Your task to perform on an android device: install app "Google Chrome" Image 0: 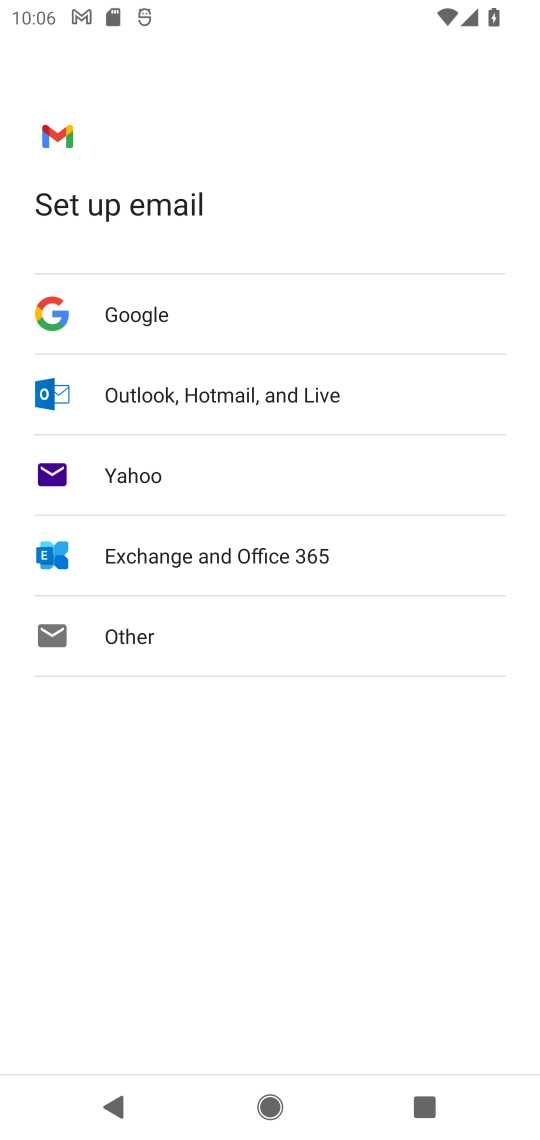
Step 0: press home button
Your task to perform on an android device: install app "Google Chrome" Image 1: 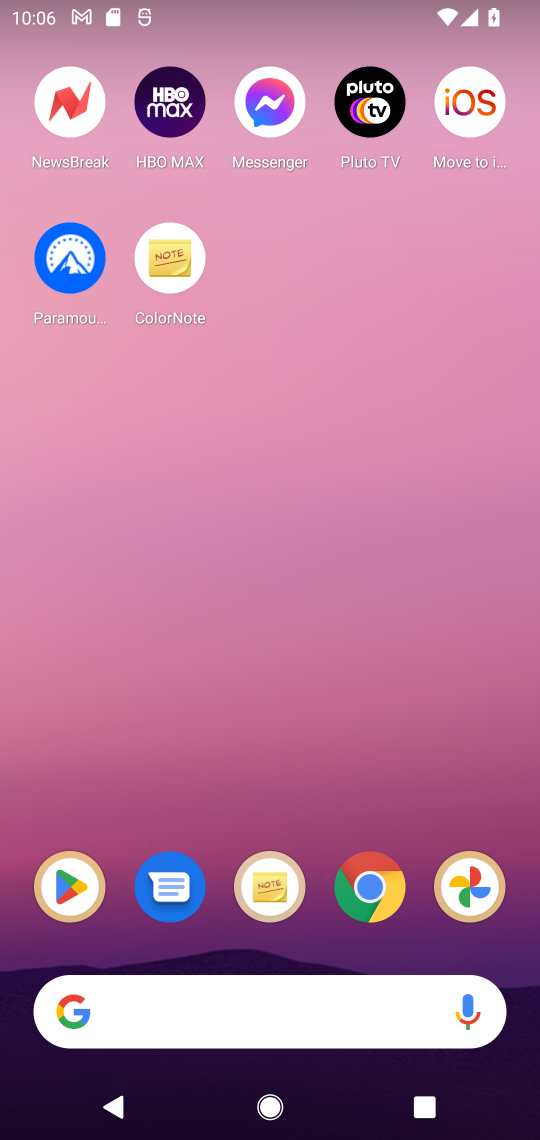
Step 1: click (52, 884)
Your task to perform on an android device: install app "Google Chrome" Image 2: 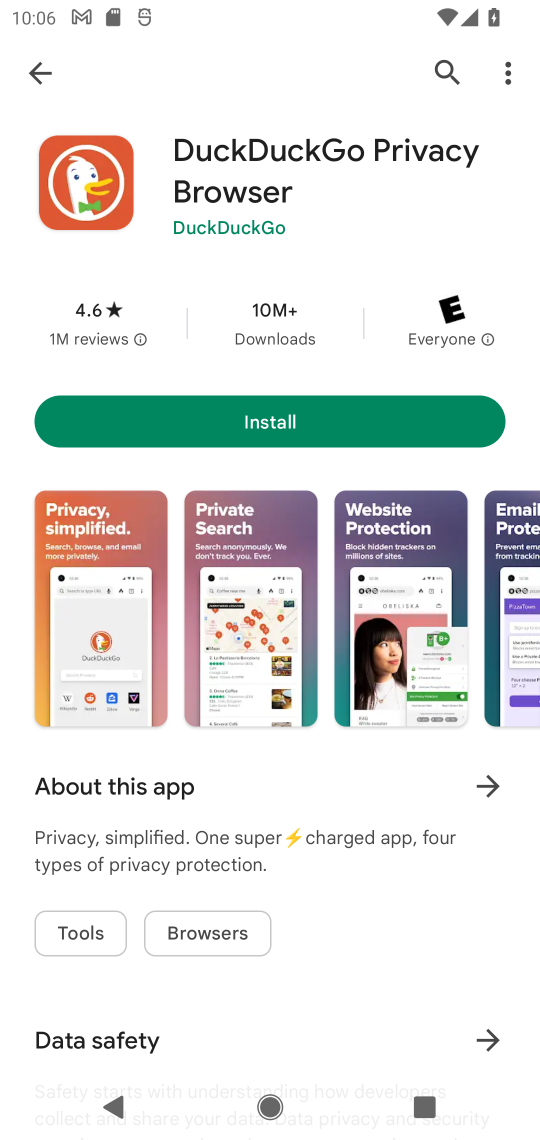
Step 2: click (452, 73)
Your task to perform on an android device: install app "Google Chrome" Image 3: 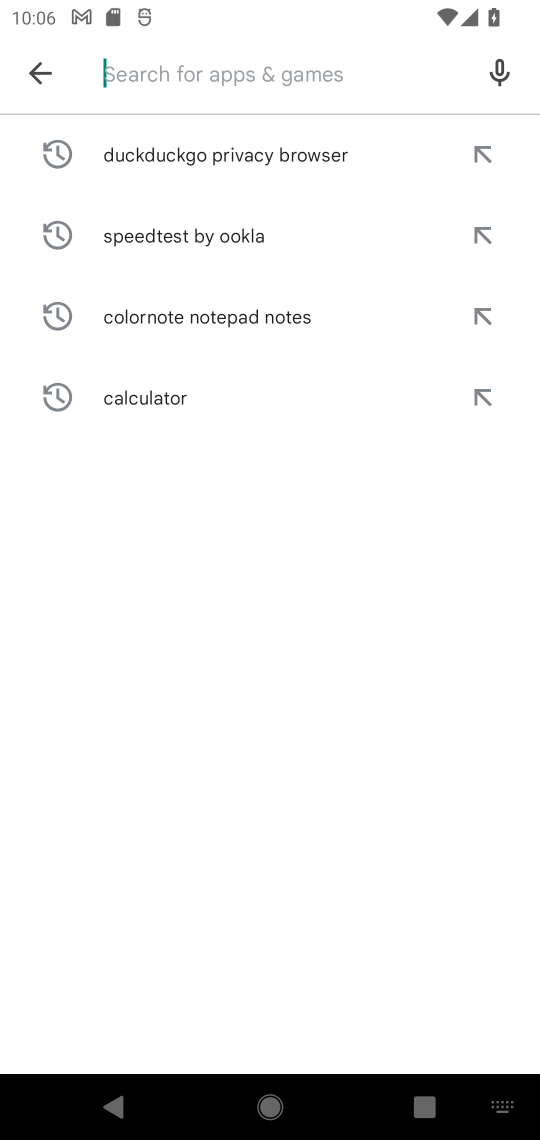
Step 3: type "google chrome"
Your task to perform on an android device: install app "Google Chrome" Image 4: 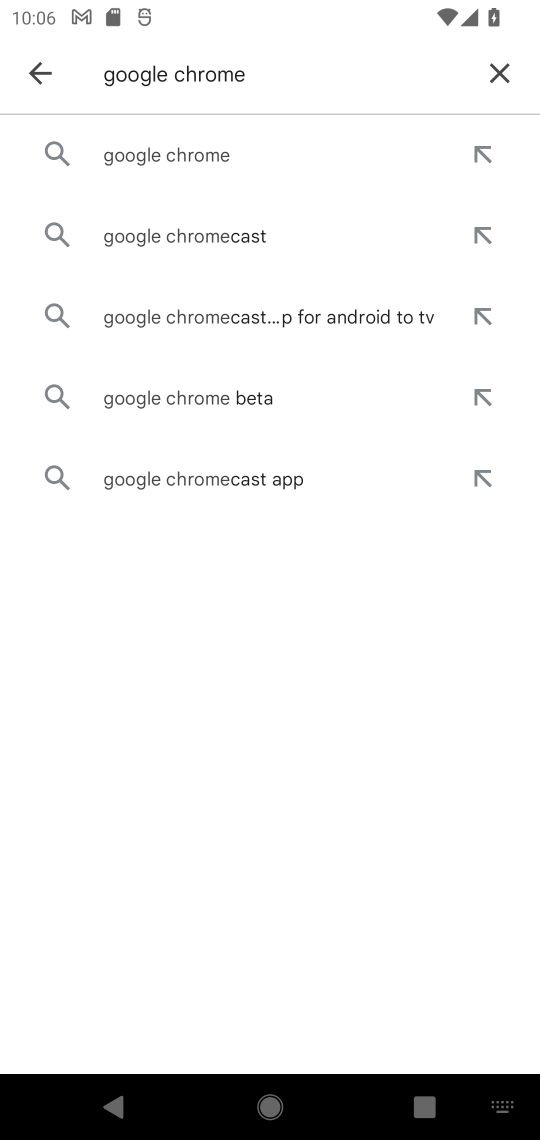
Step 4: click (364, 134)
Your task to perform on an android device: install app "Google Chrome" Image 5: 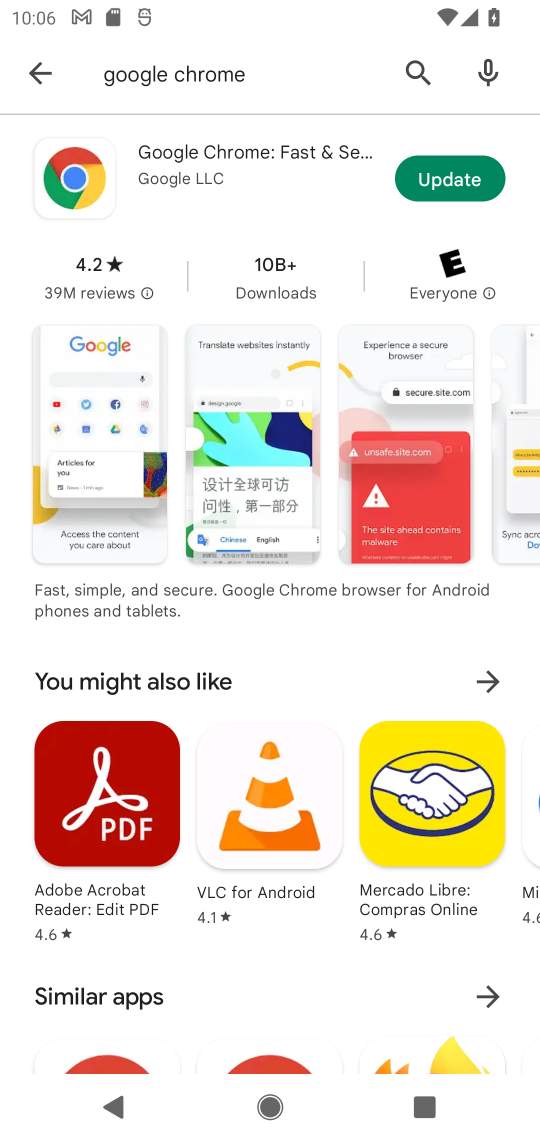
Step 5: click (279, 167)
Your task to perform on an android device: install app "Google Chrome" Image 6: 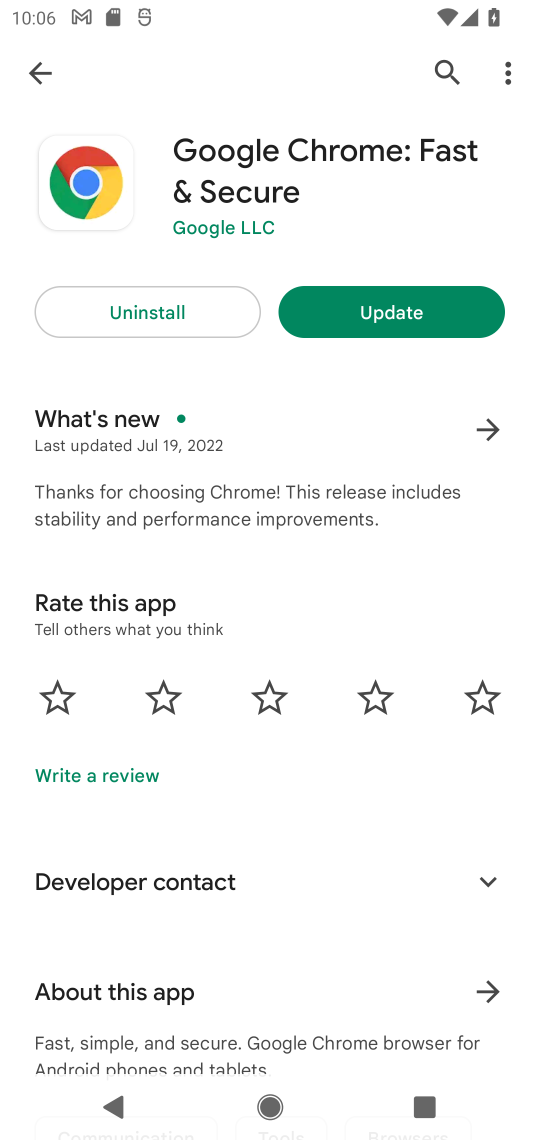
Step 6: task complete